Your task to perform on an android device: Open Chrome and go to the settings page Image 0: 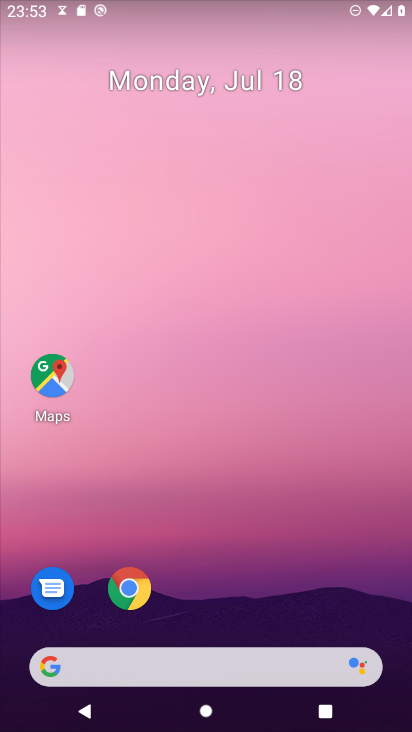
Step 0: press home button
Your task to perform on an android device: Open Chrome and go to the settings page Image 1: 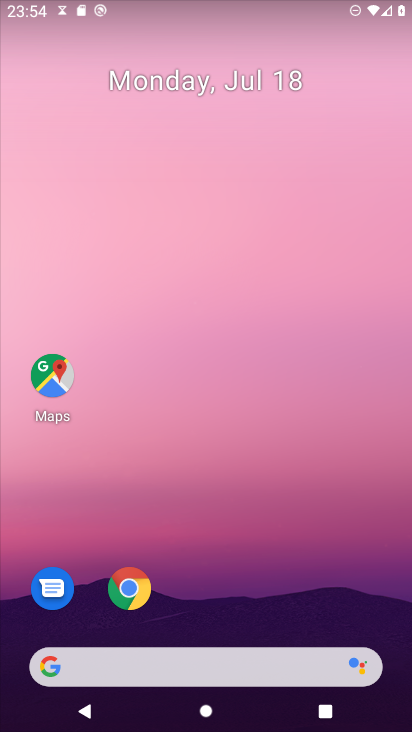
Step 1: click (125, 589)
Your task to perform on an android device: Open Chrome and go to the settings page Image 2: 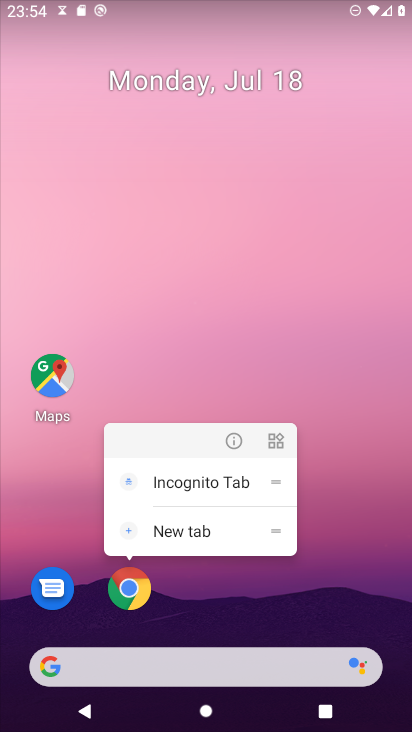
Step 2: click (124, 580)
Your task to perform on an android device: Open Chrome and go to the settings page Image 3: 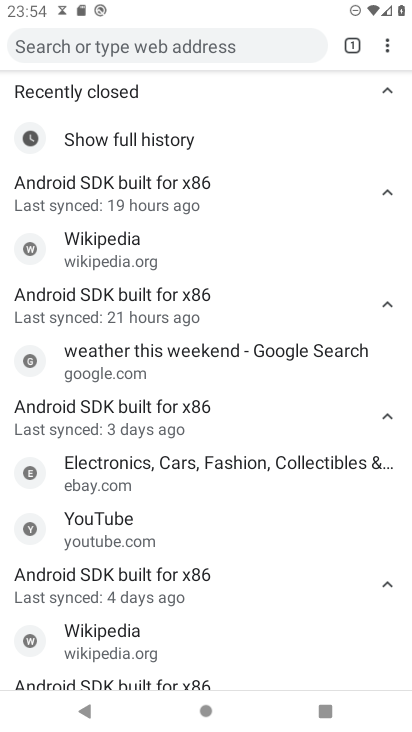
Step 3: task complete